Your task to perform on an android device: Show me productivity apps on the Play Store Image 0: 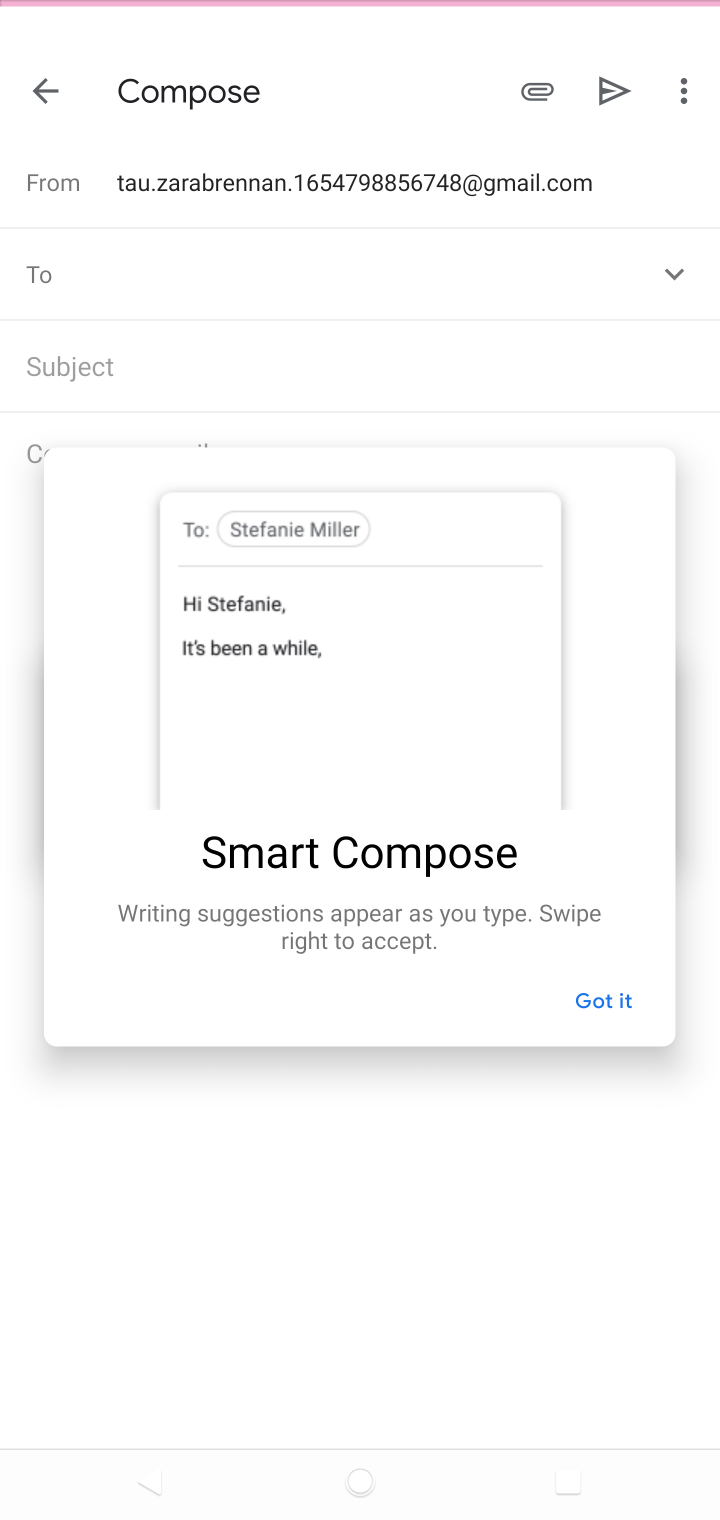
Step 0: press home button
Your task to perform on an android device: Show me productivity apps on the Play Store Image 1: 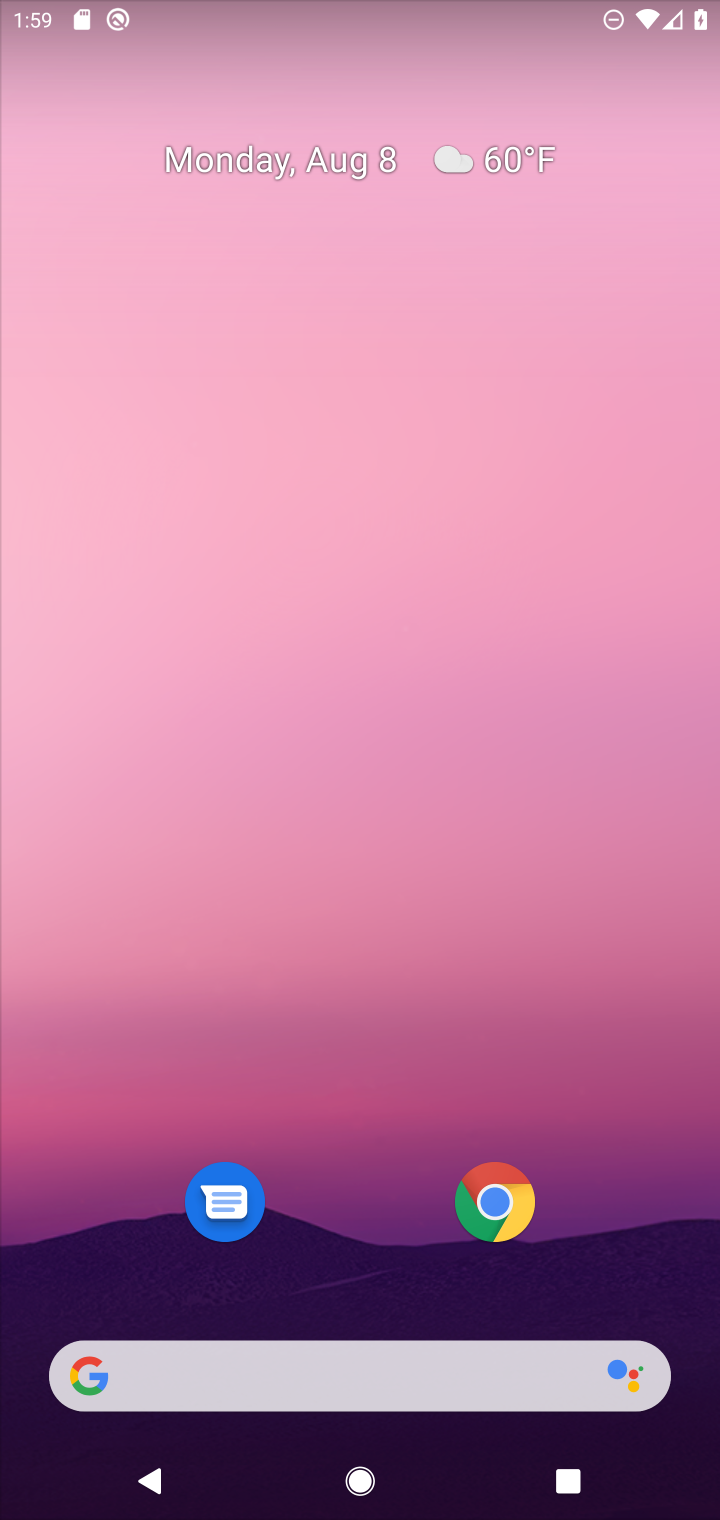
Step 1: press home button
Your task to perform on an android device: Show me productivity apps on the Play Store Image 2: 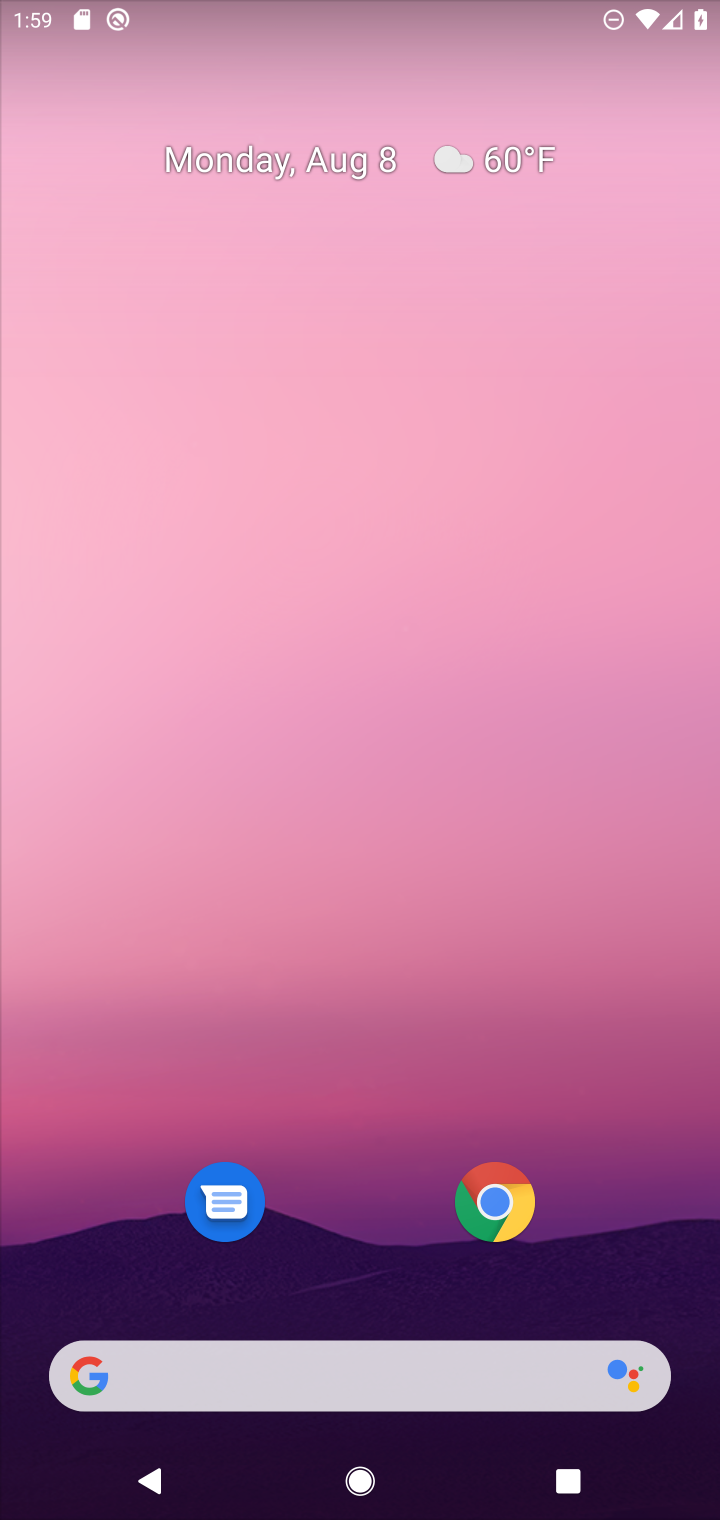
Step 2: drag from (608, 844) to (620, 239)
Your task to perform on an android device: Show me productivity apps on the Play Store Image 3: 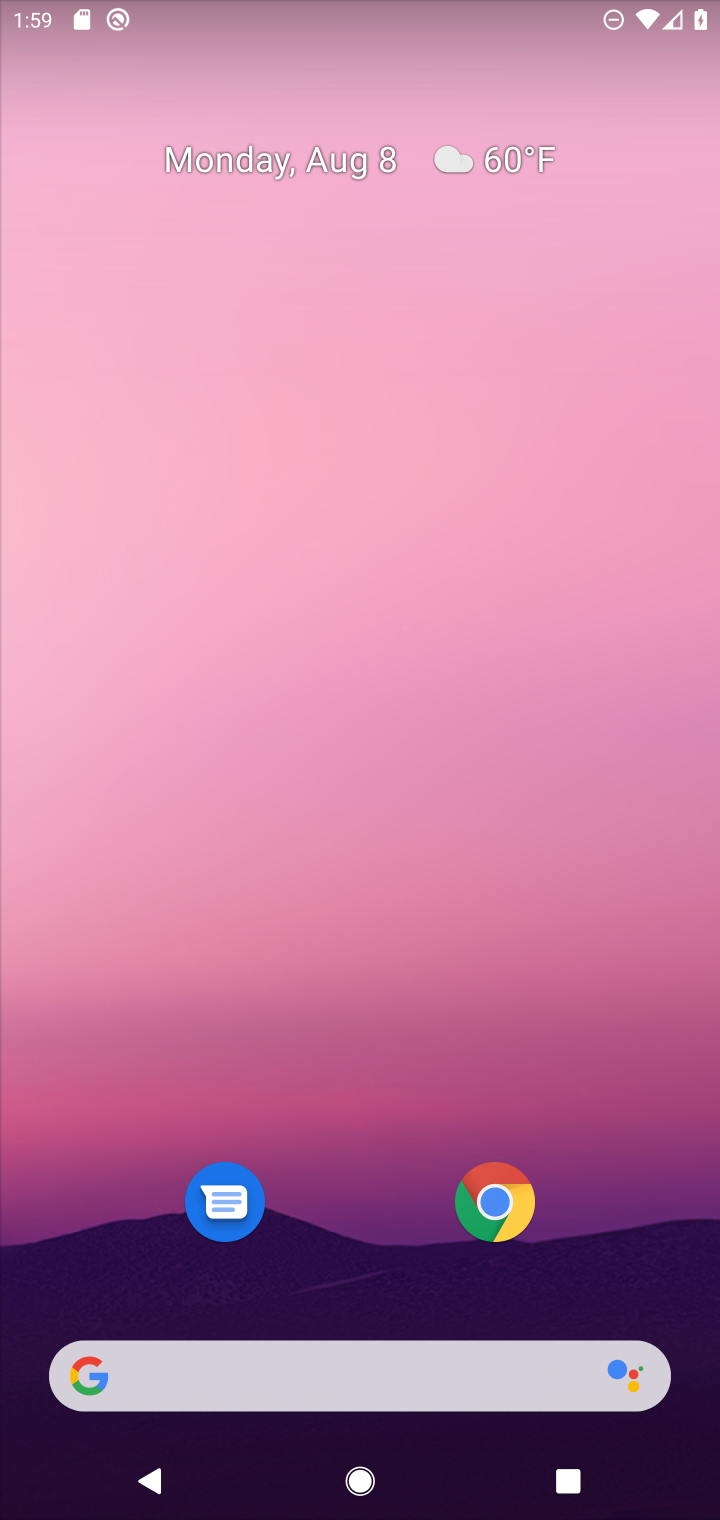
Step 3: drag from (588, 1236) to (665, 255)
Your task to perform on an android device: Show me productivity apps on the Play Store Image 4: 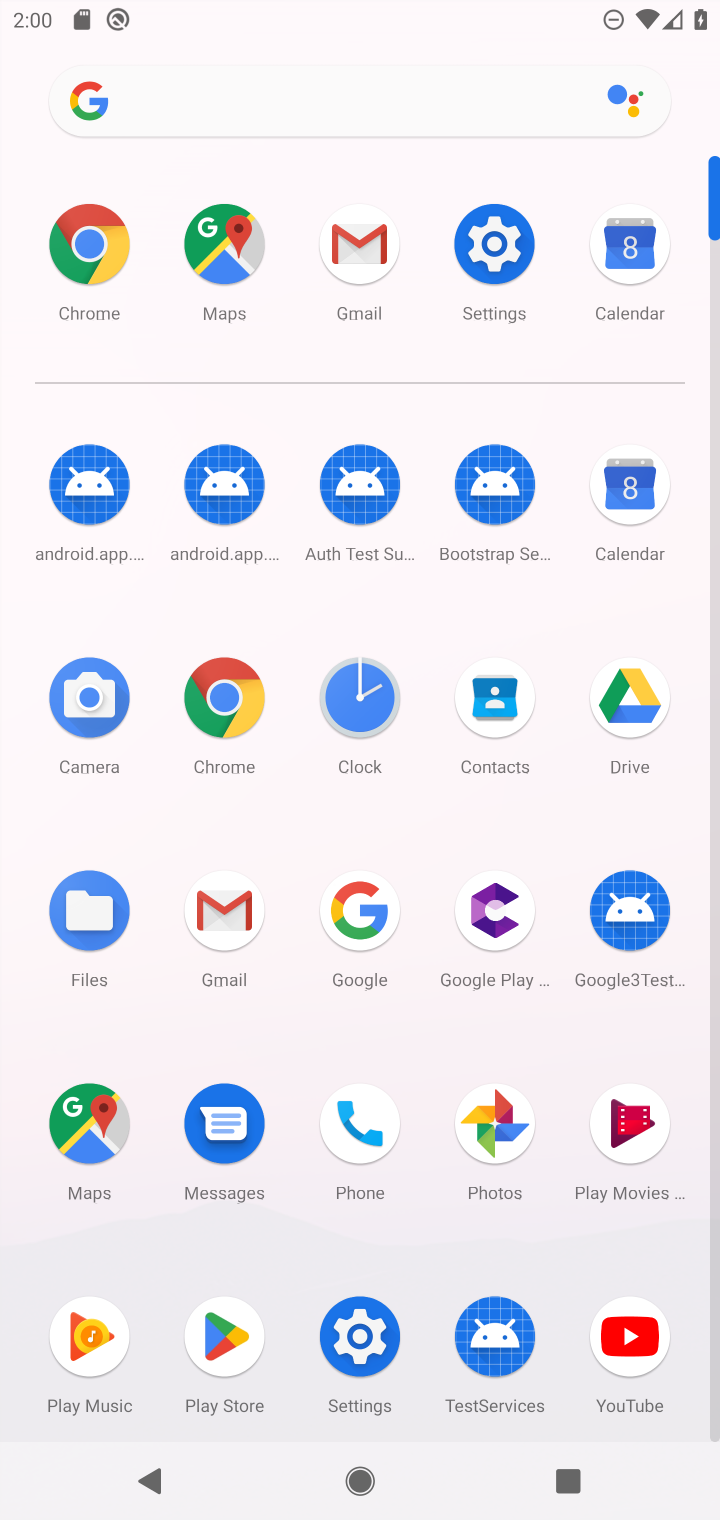
Step 4: click (207, 1332)
Your task to perform on an android device: Show me productivity apps on the Play Store Image 5: 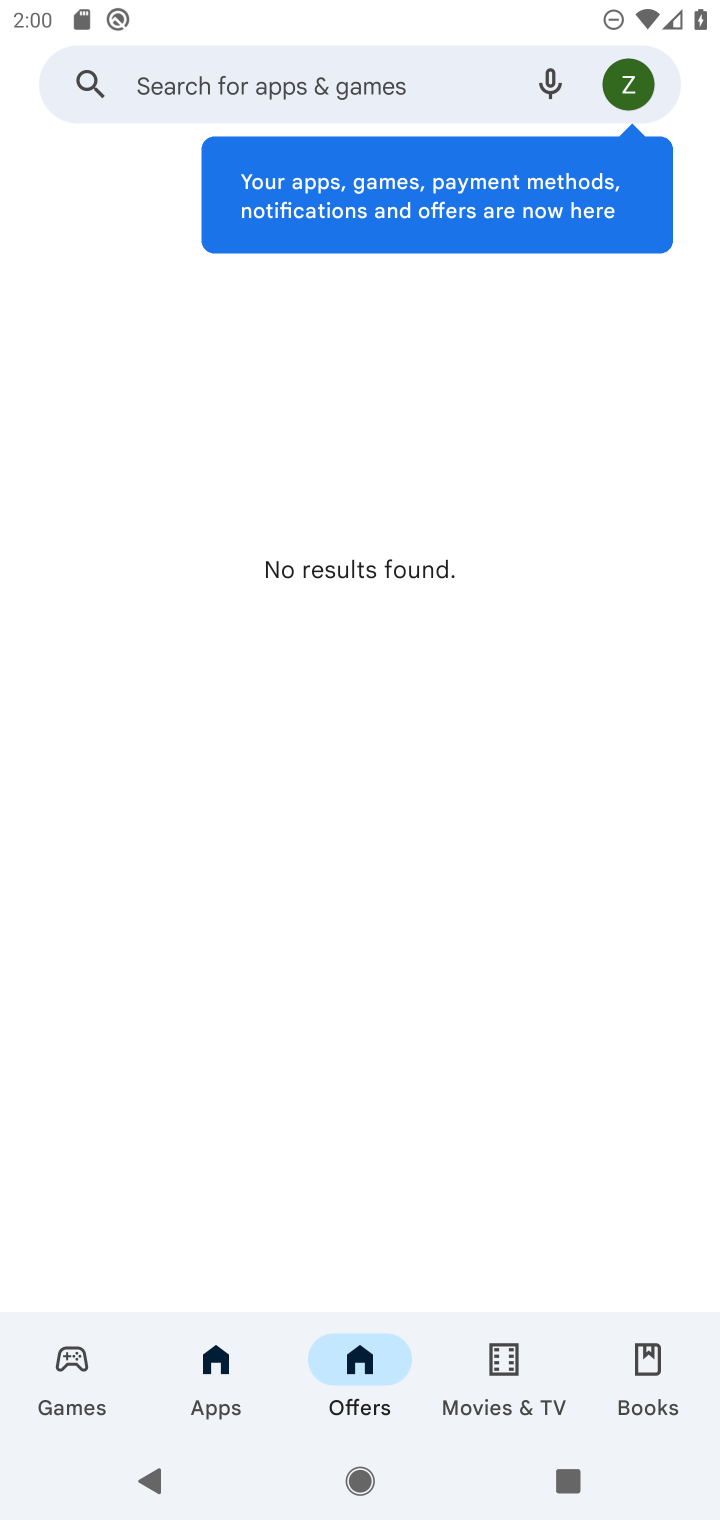
Step 5: click (202, 1372)
Your task to perform on an android device: Show me productivity apps on the Play Store Image 6: 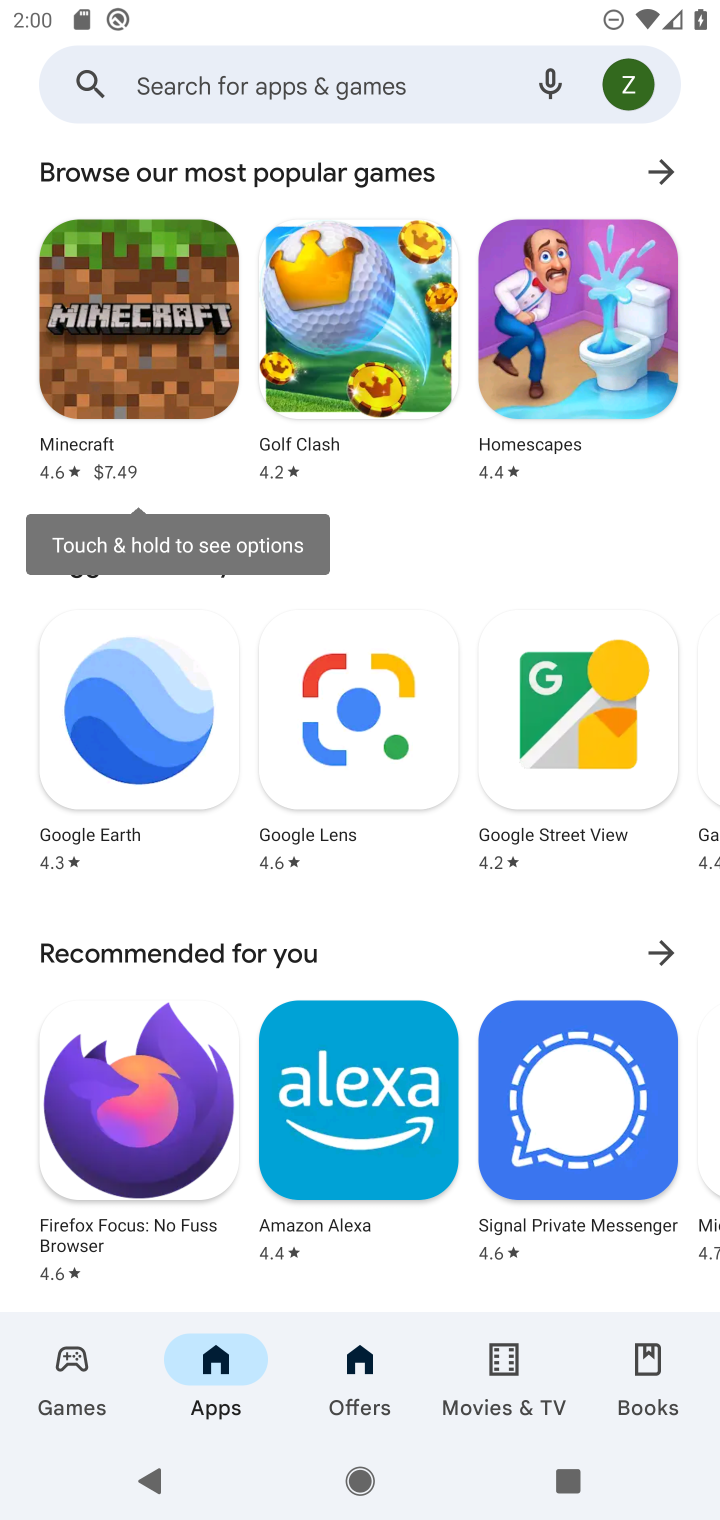
Step 6: task complete